Your task to perform on an android device: Open settings on Google Maps Image 0: 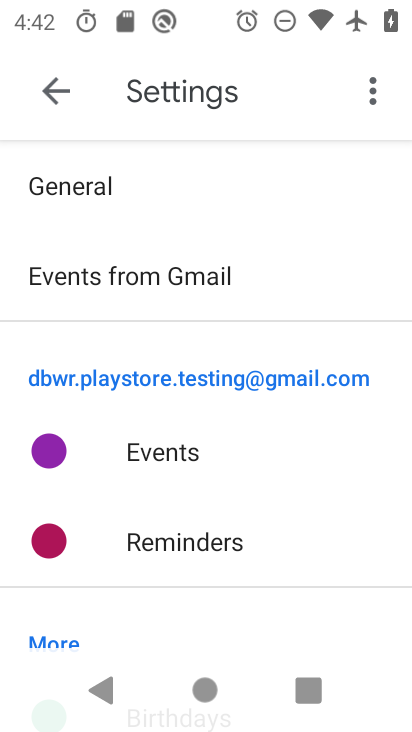
Step 0: press home button
Your task to perform on an android device: Open settings on Google Maps Image 1: 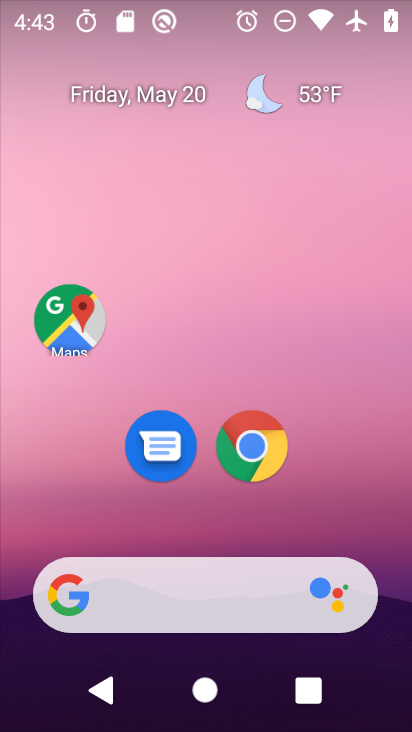
Step 1: drag from (381, 442) to (345, 145)
Your task to perform on an android device: Open settings on Google Maps Image 2: 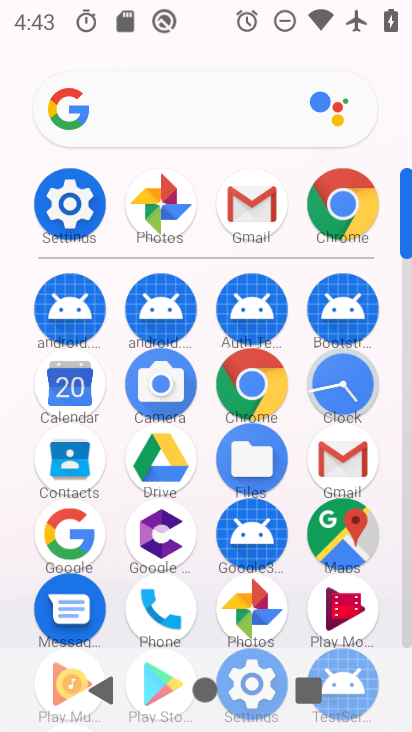
Step 2: click (337, 541)
Your task to perform on an android device: Open settings on Google Maps Image 3: 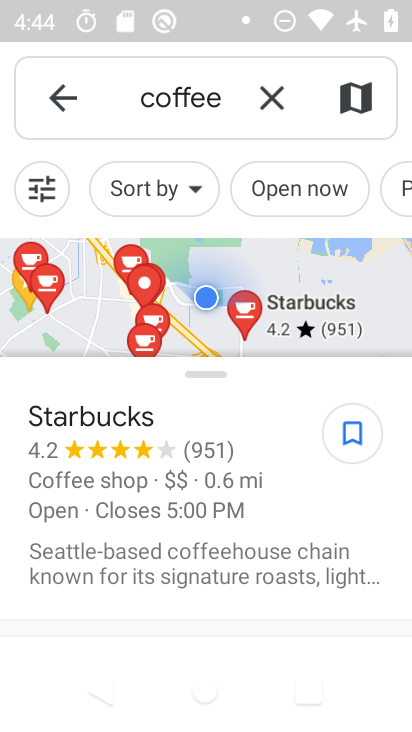
Step 3: task complete